Your task to perform on an android device: turn off location Image 0: 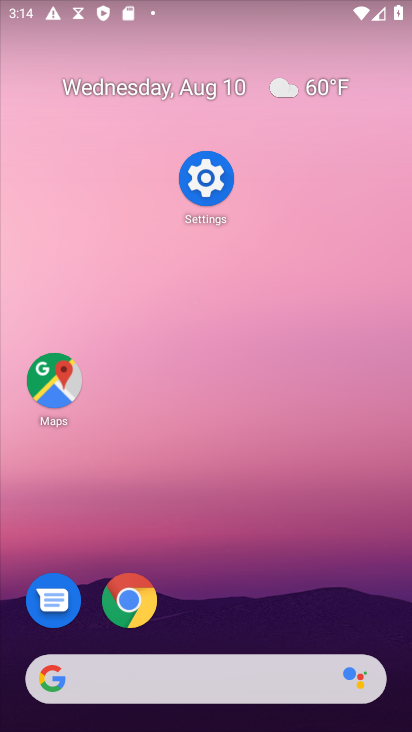
Step 0: press home button
Your task to perform on an android device: turn off location Image 1: 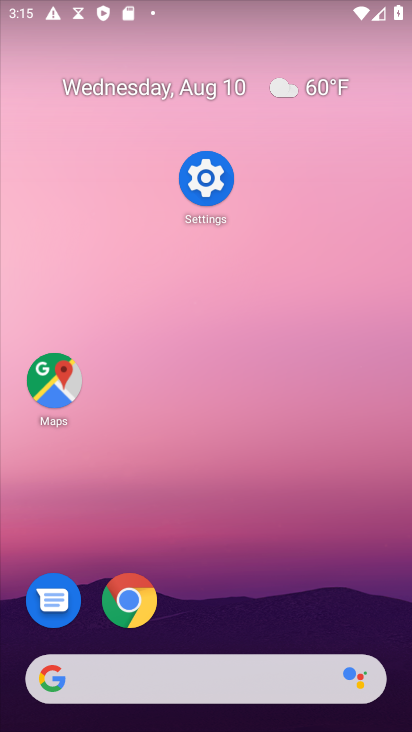
Step 1: click (208, 190)
Your task to perform on an android device: turn off location Image 2: 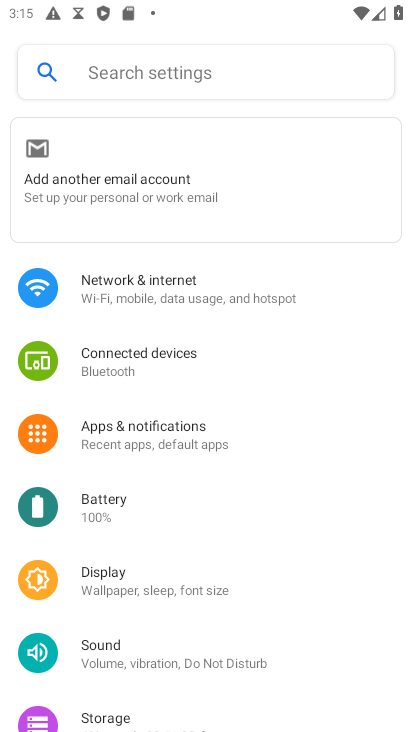
Step 2: drag from (297, 638) to (267, 249)
Your task to perform on an android device: turn off location Image 3: 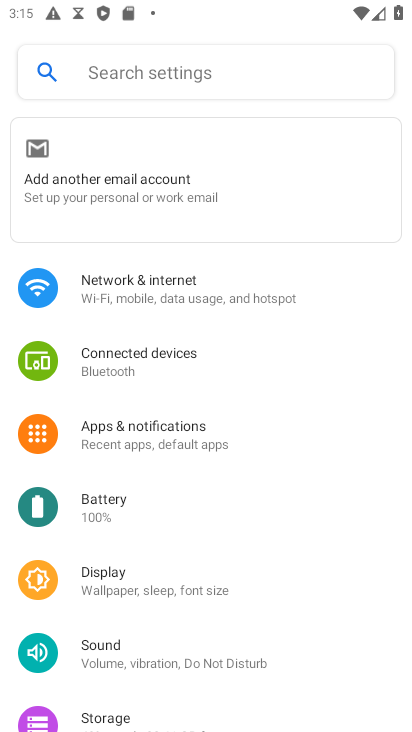
Step 3: drag from (321, 681) to (305, 168)
Your task to perform on an android device: turn off location Image 4: 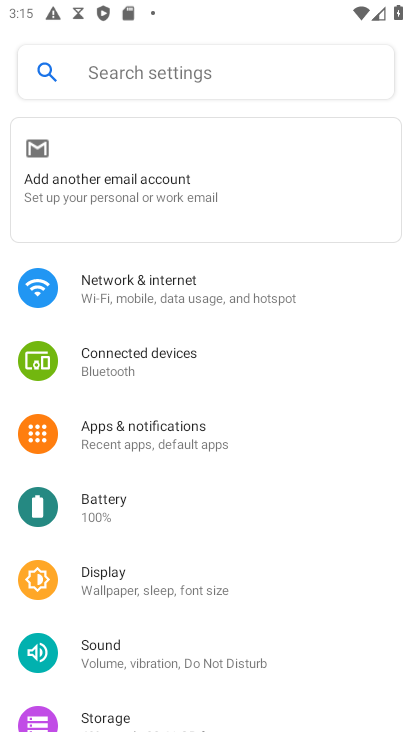
Step 4: drag from (313, 694) to (293, 211)
Your task to perform on an android device: turn off location Image 5: 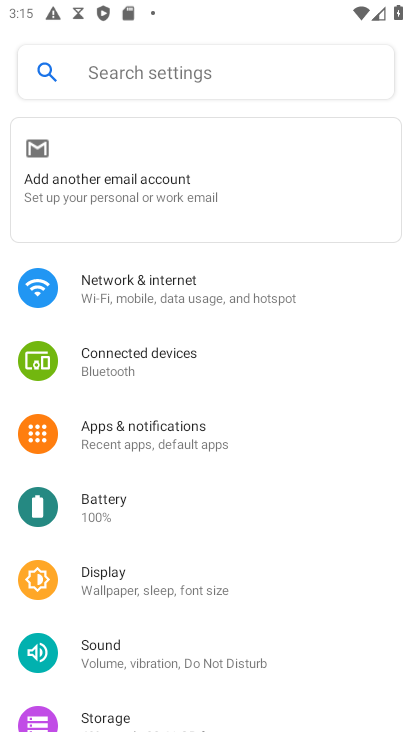
Step 5: drag from (294, 615) to (305, 75)
Your task to perform on an android device: turn off location Image 6: 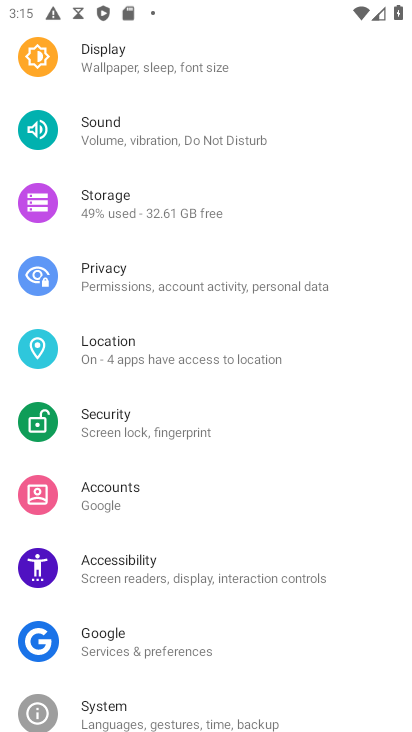
Step 6: click (113, 361)
Your task to perform on an android device: turn off location Image 7: 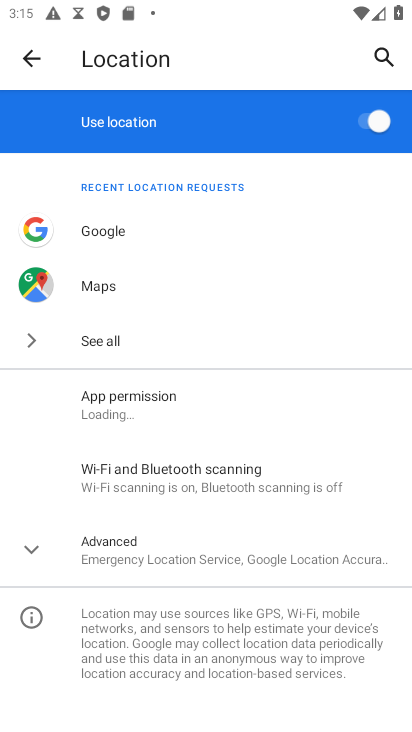
Step 7: click (380, 120)
Your task to perform on an android device: turn off location Image 8: 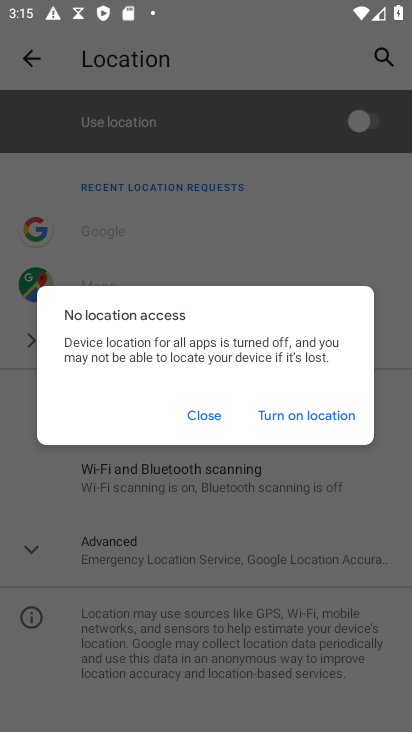
Step 8: task complete